Your task to perform on an android device: View the shopping cart on target. Image 0: 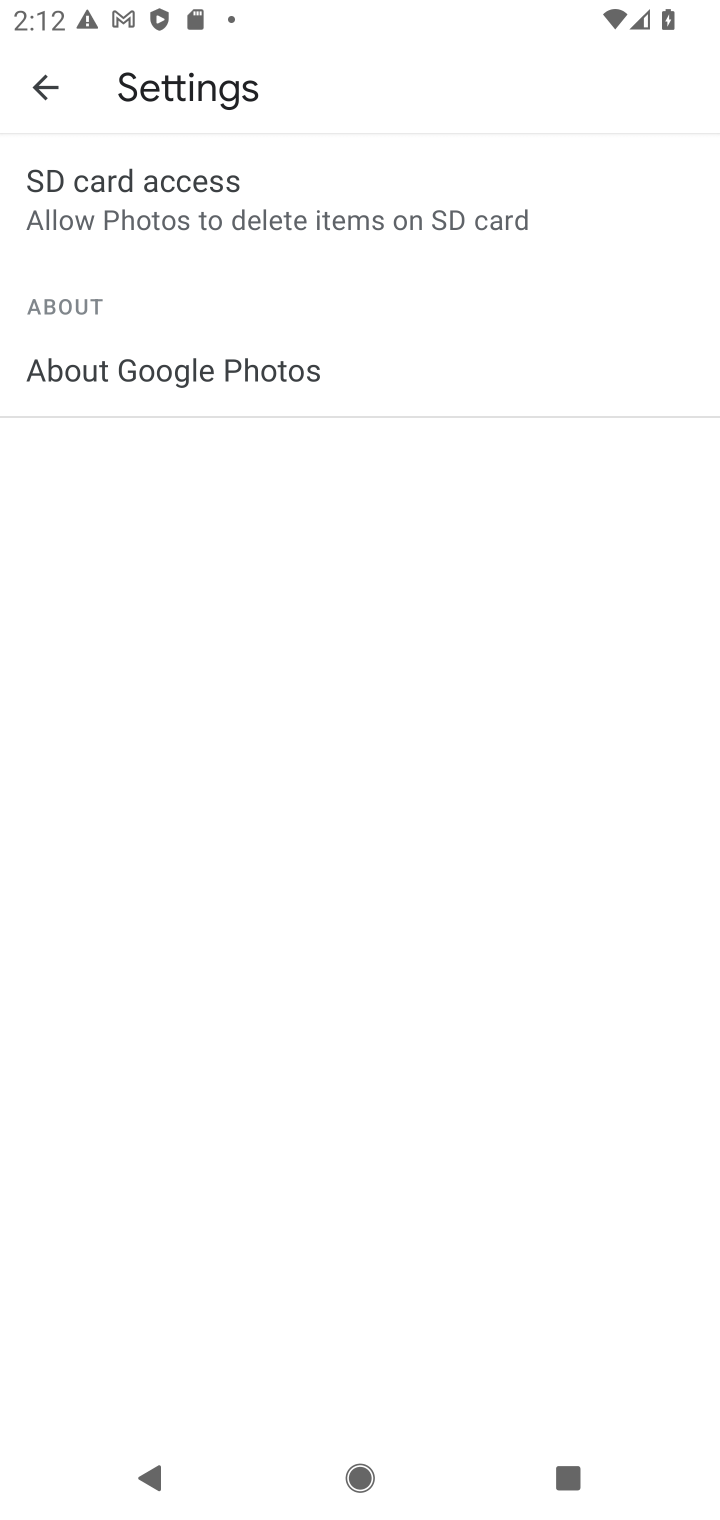
Step 0: press home button
Your task to perform on an android device: View the shopping cart on target. Image 1: 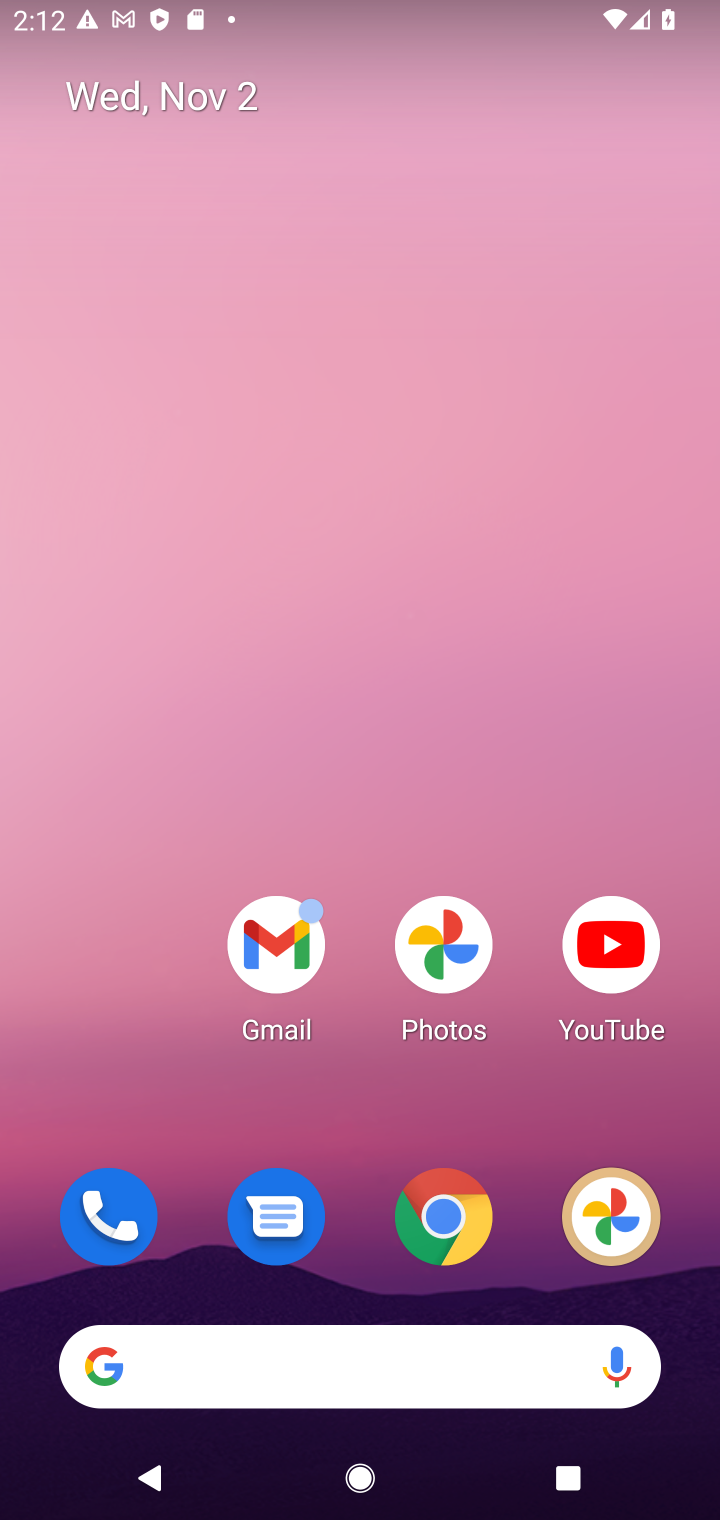
Step 1: click (447, 1201)
Your task to perform on an android device: View the shopping cart on target. Image 2: 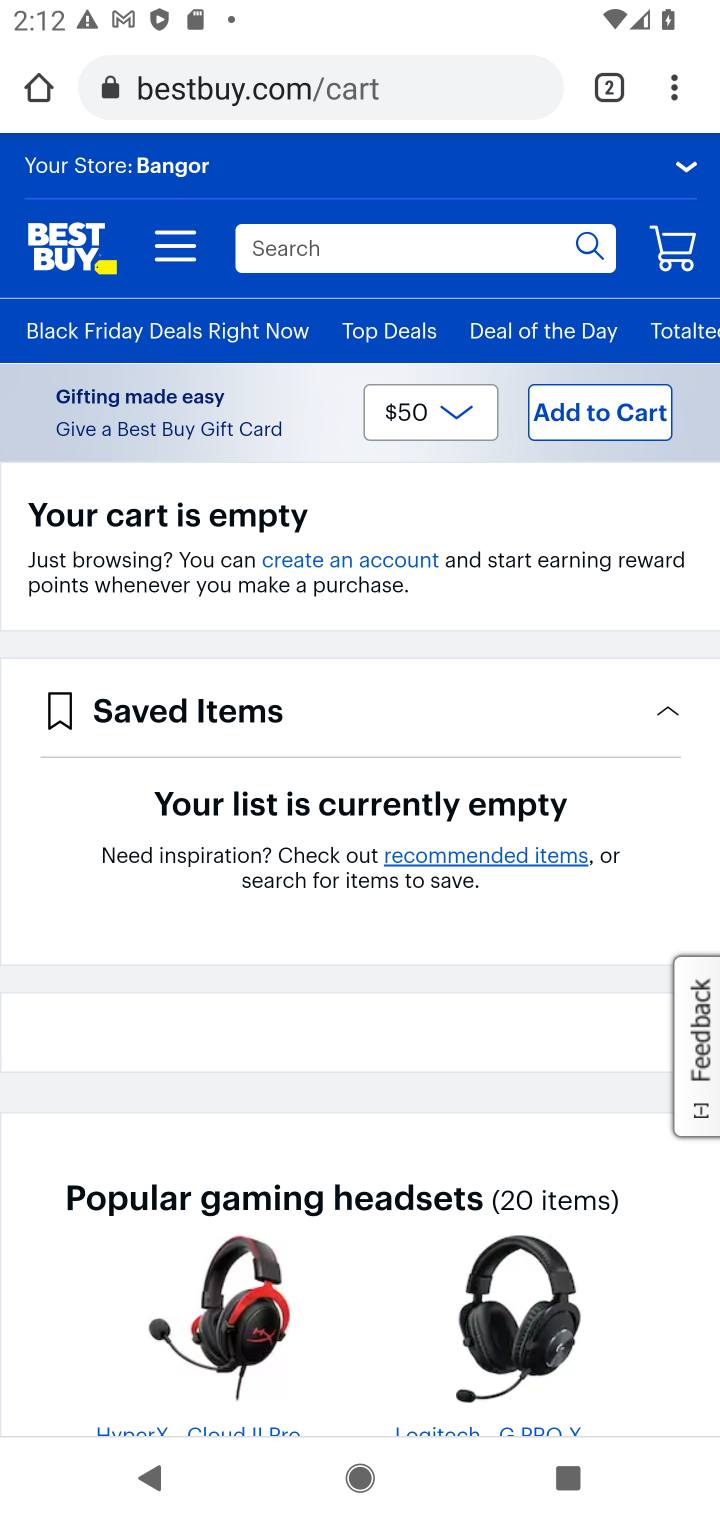
Step 2: click (612, 95)
Your task to perform on an android device: View the shopping cart on target. Image 3: 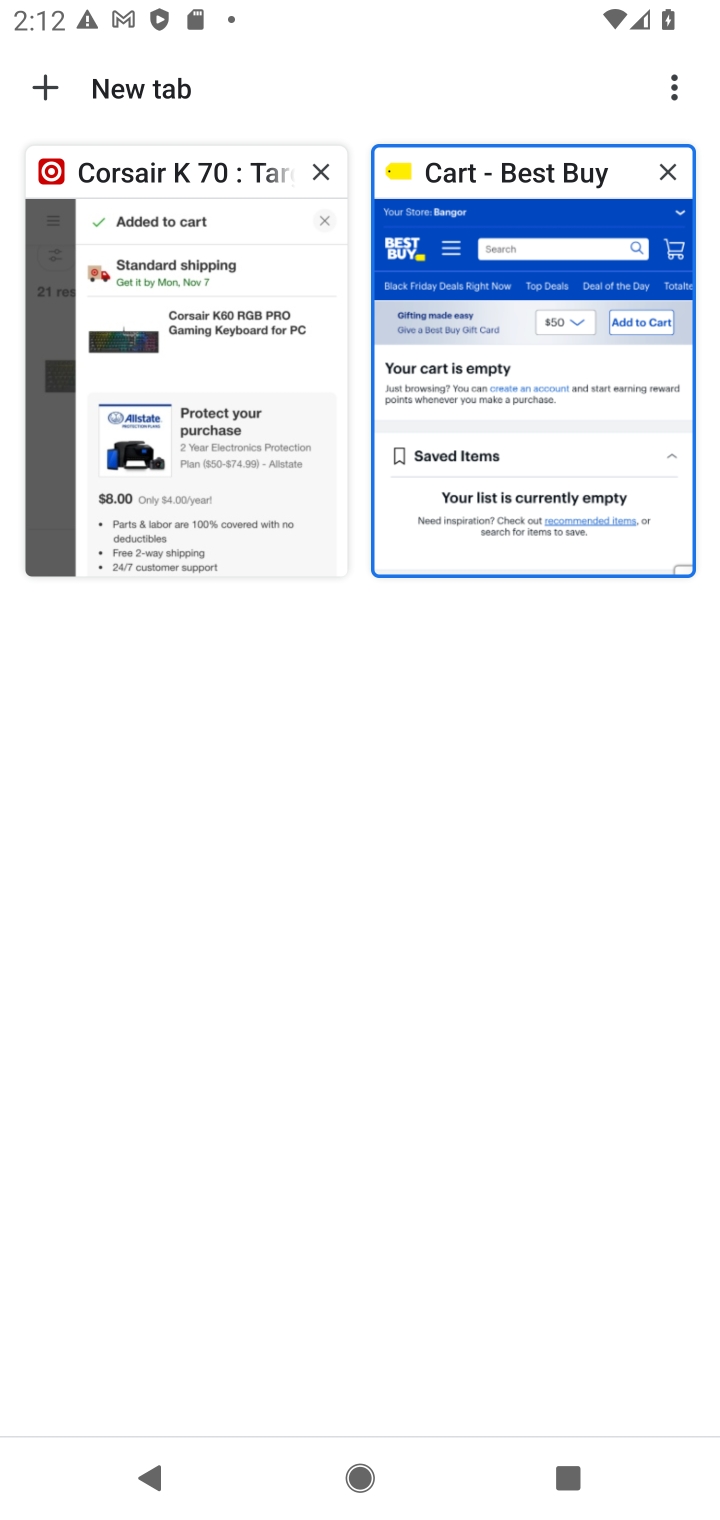
Step 3: click (55, 94)
Your task to perform on an android device: View the shopping cart on target. Image 4: 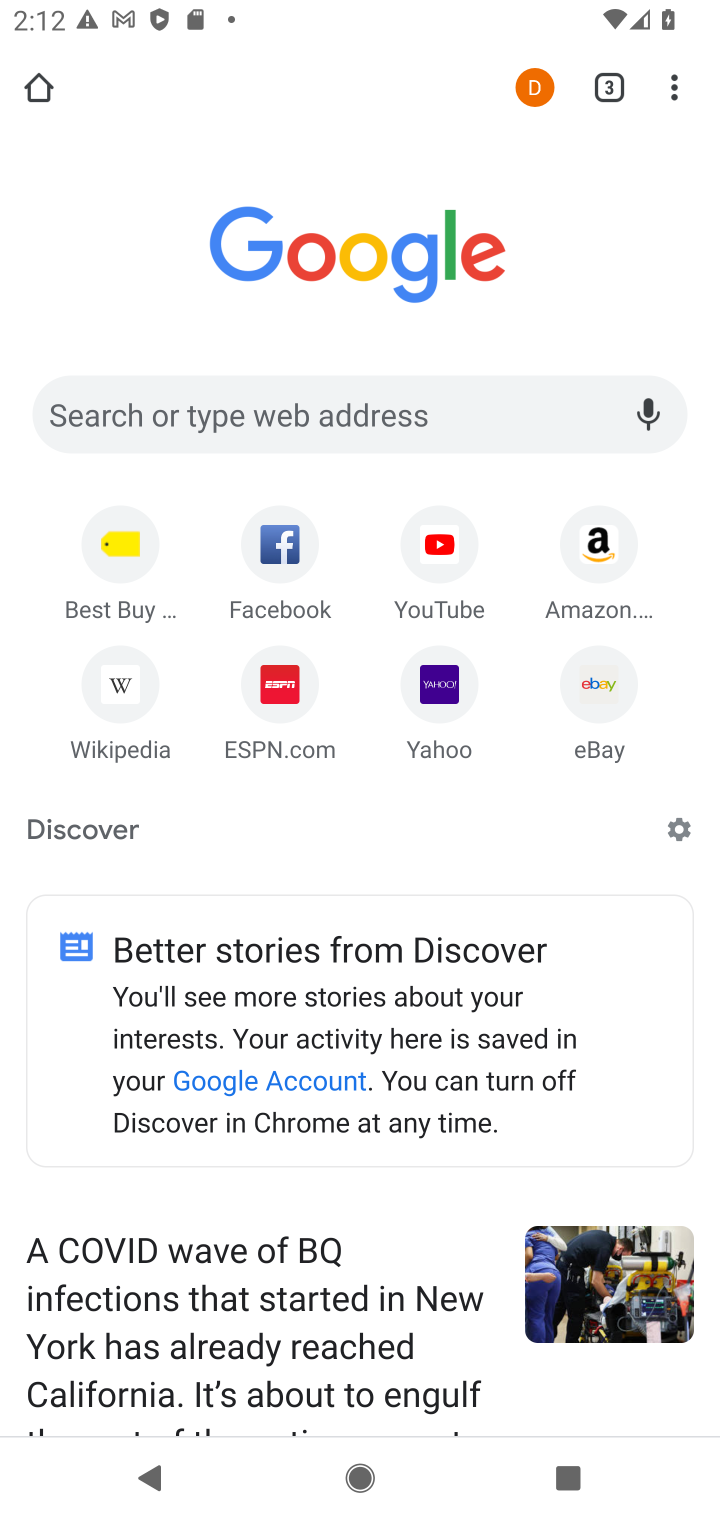
Step 4: click (331, 415)
Your task to perform on an android device: View the shopping cart on target. Image 5: 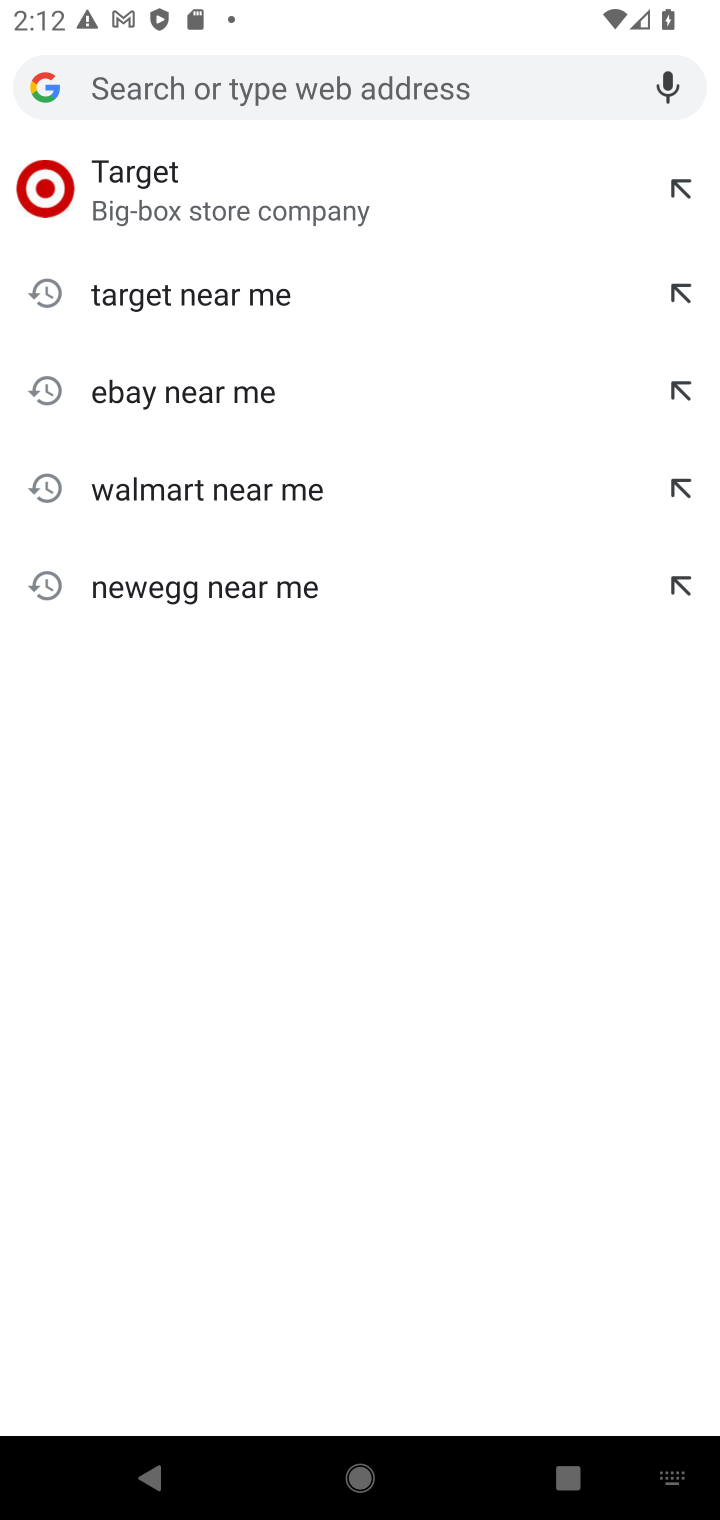
Step 5: type "target"
Your task to perform on an android device: View the shopping cart on target. Image 6: 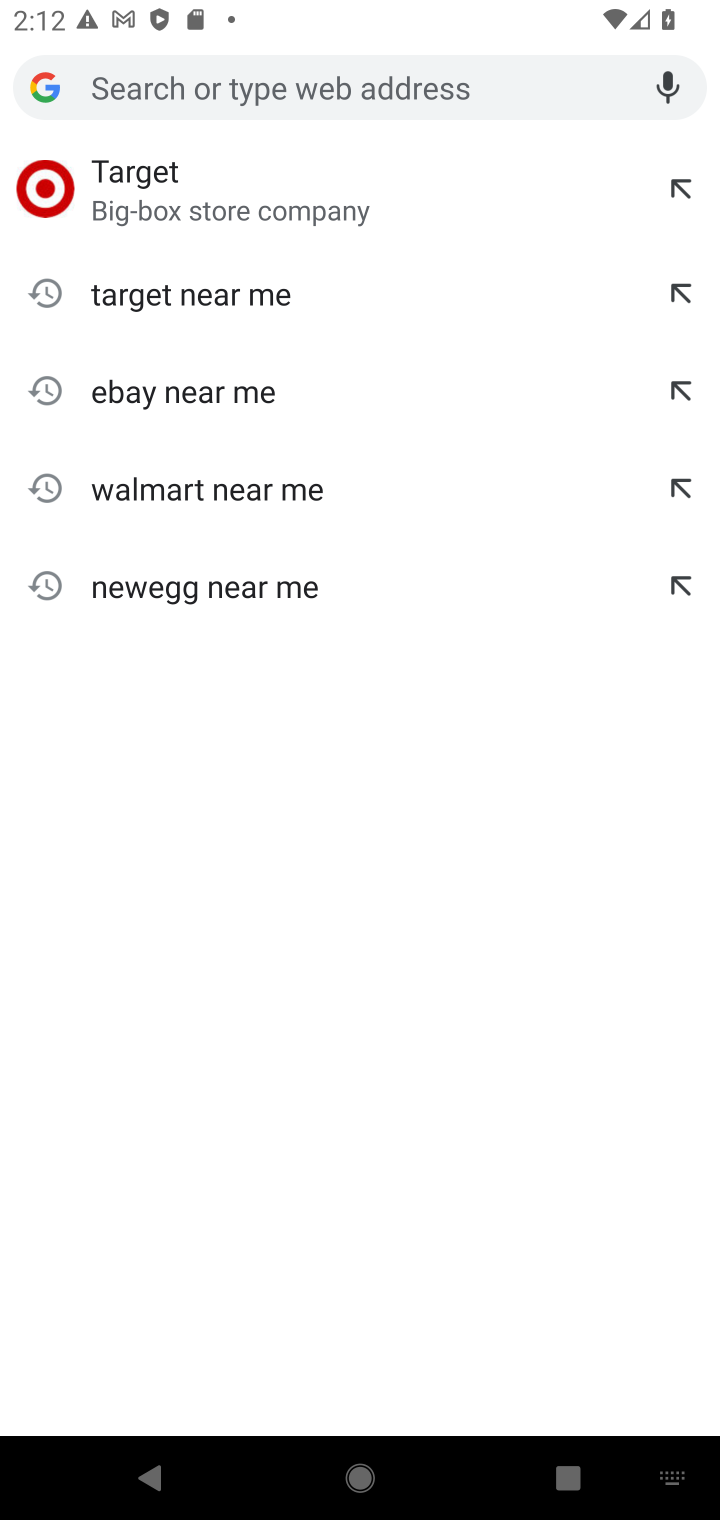
Step 6: click (153, 187)
Your task to perform on an android device: View the shopping cart on target. Image 7: 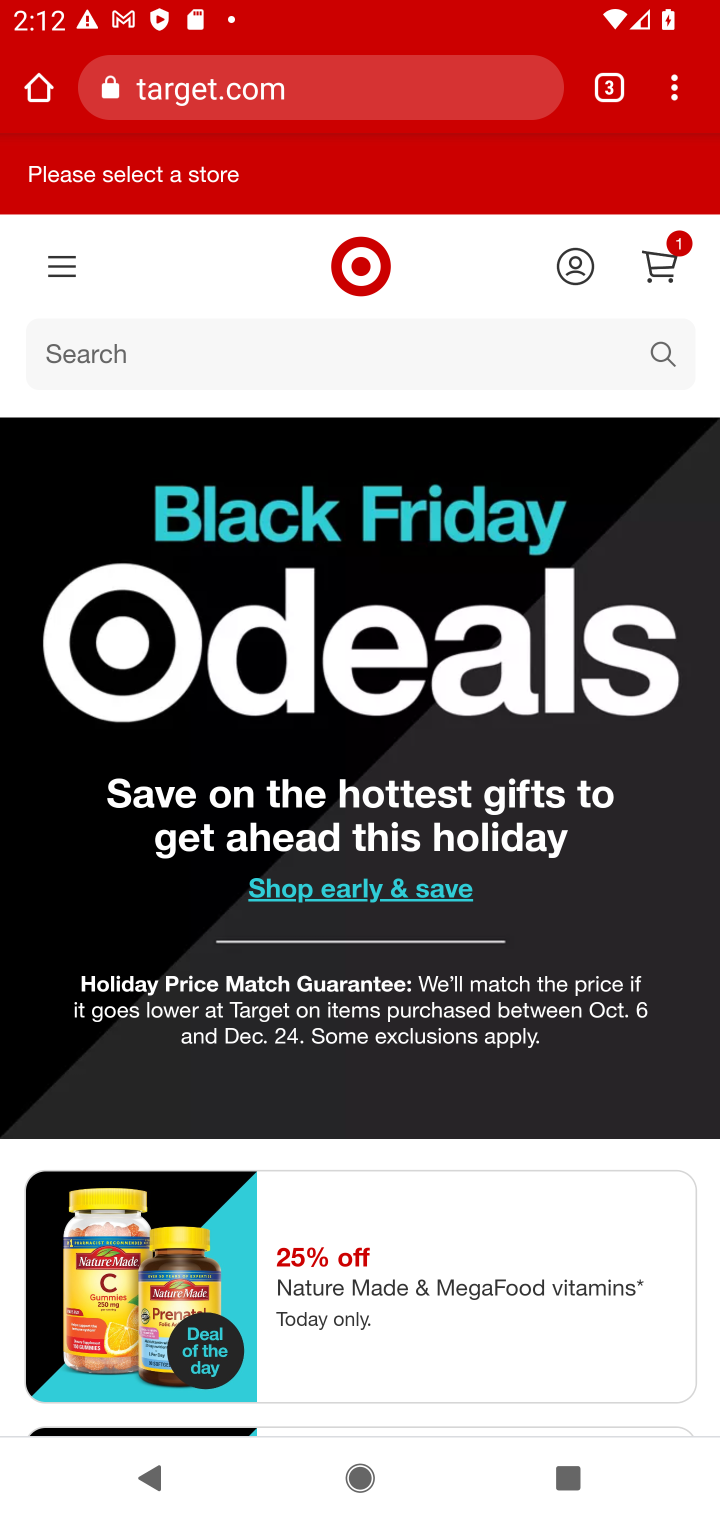
Step 7: click (663, 276)
Your task to perform on an android device: View the shopping cart on target. Image 8: 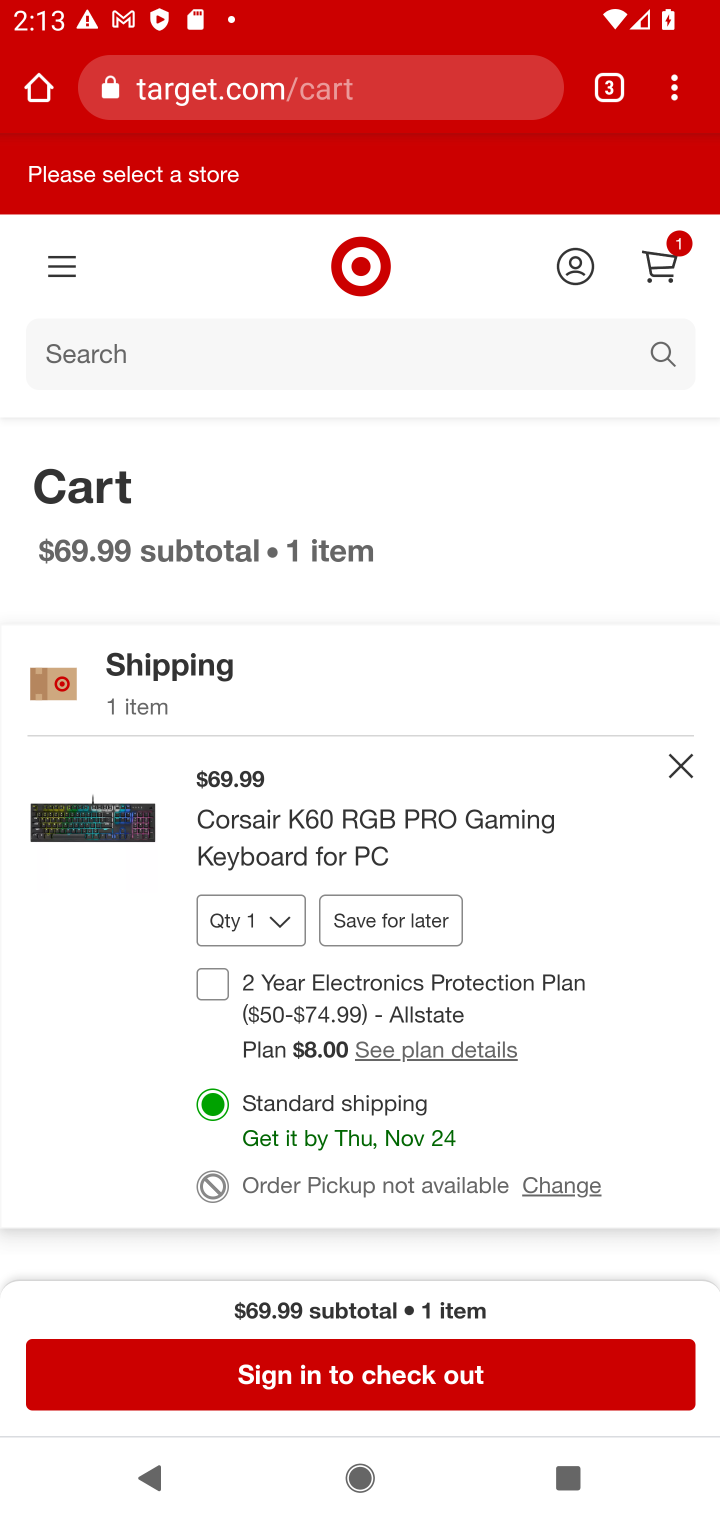
Step 8: task complete